Your task to perform on an android device: Open the calendar and show me this week's events? Image 0: 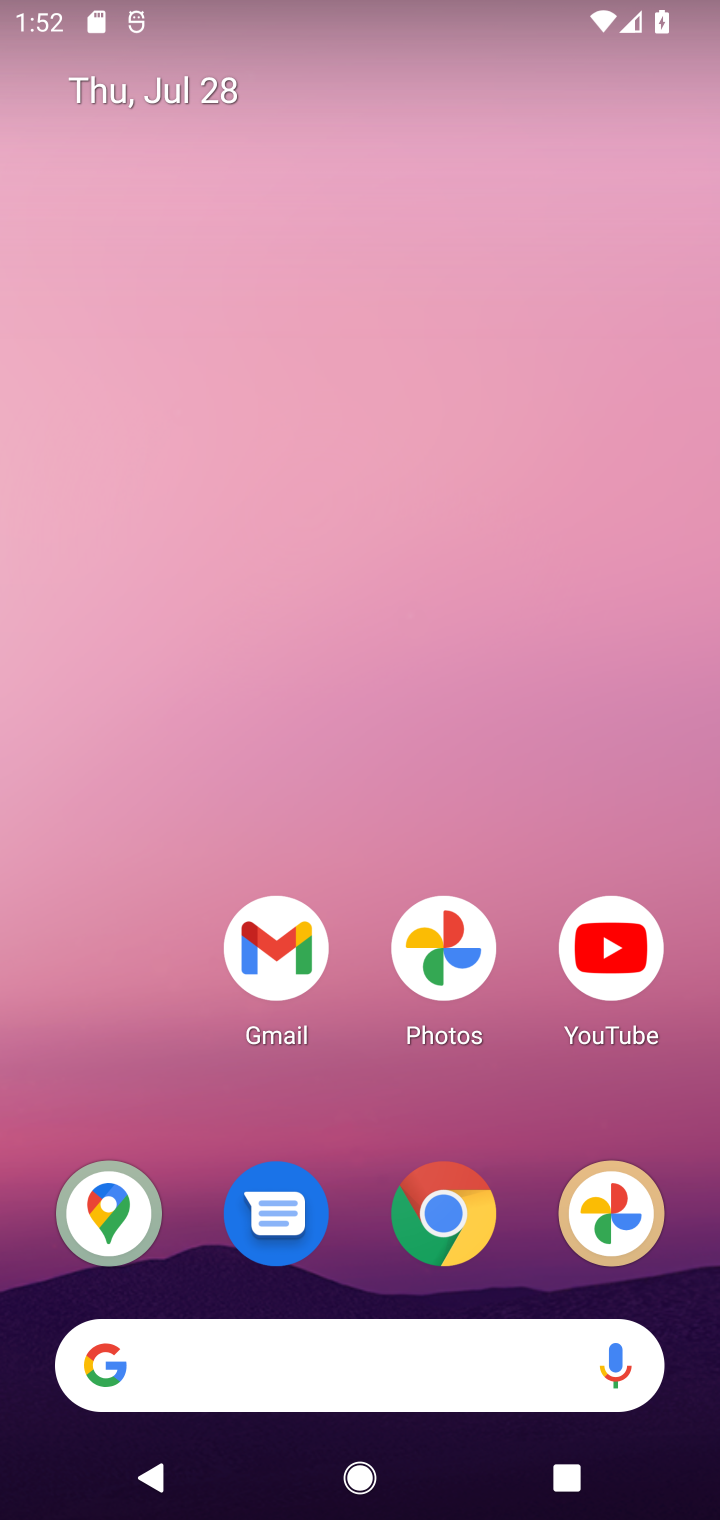
Step 0: drag from (155, 1083) to (212, 1)
Your task to perform on an android device: Open the calendar and show me this week's events? Image 1: 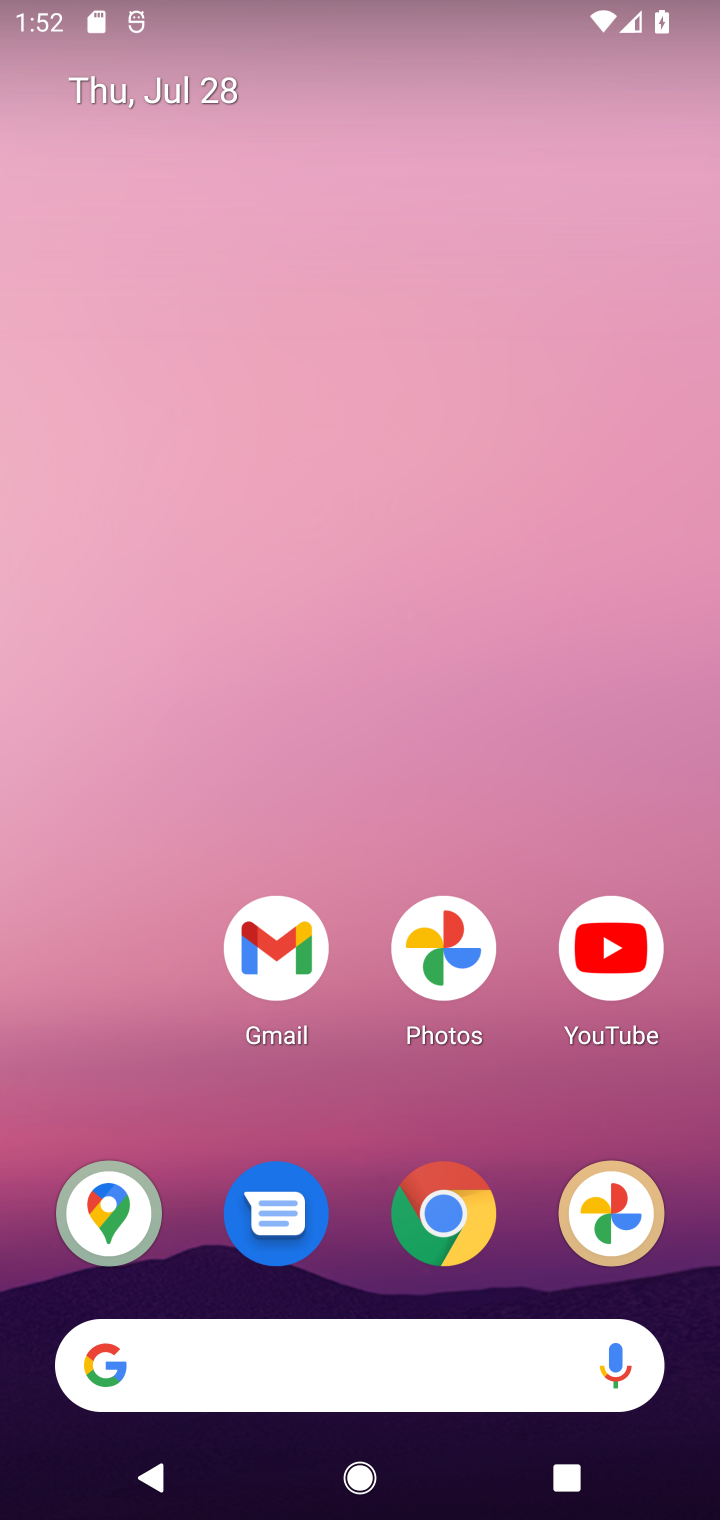
Step 1: drag from (369, 1273) to (150, 75)
Your task to perform on an android device: Open the calendar and show me this week's events? Image 2: 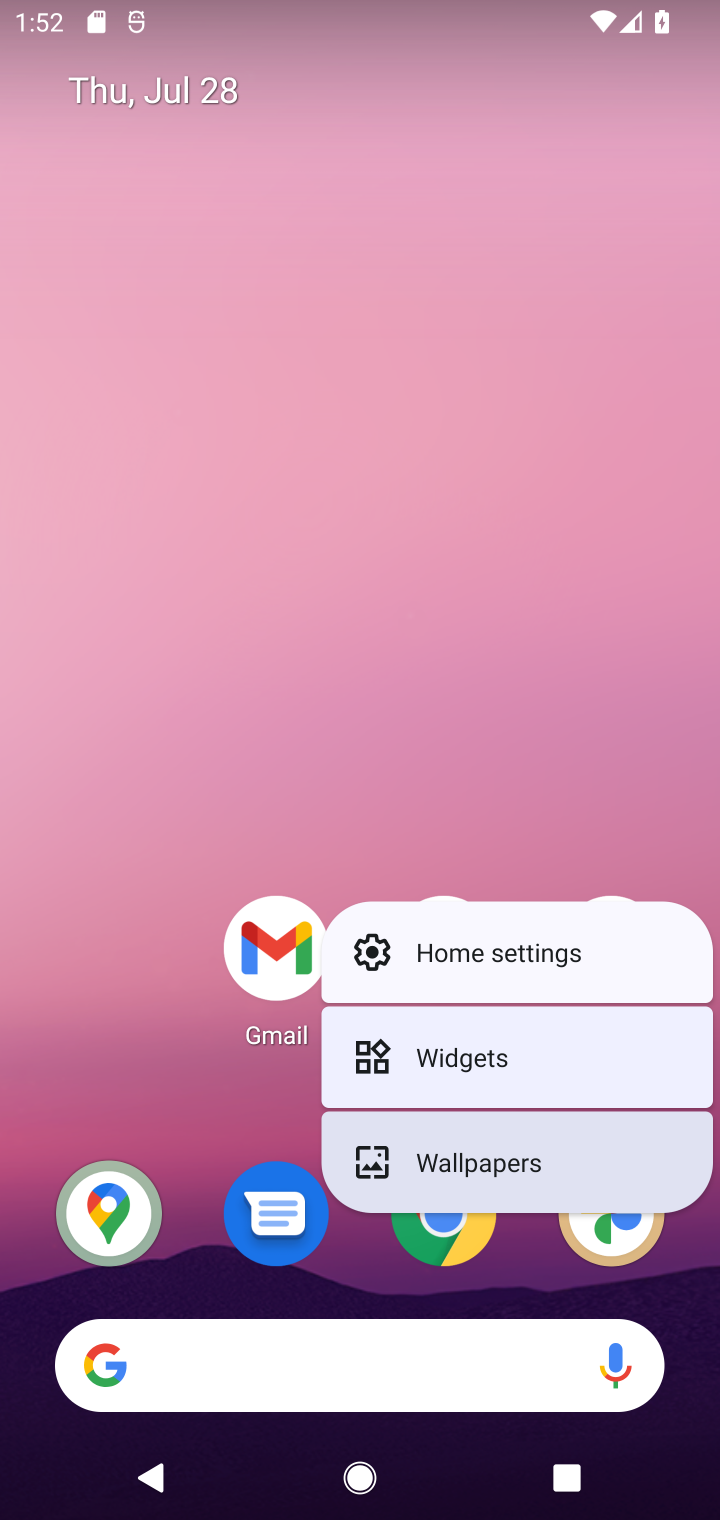
Step 2: click (213, 458)
Your task to perform on an android device: Open the calendar and show me this week's events? Image 3: 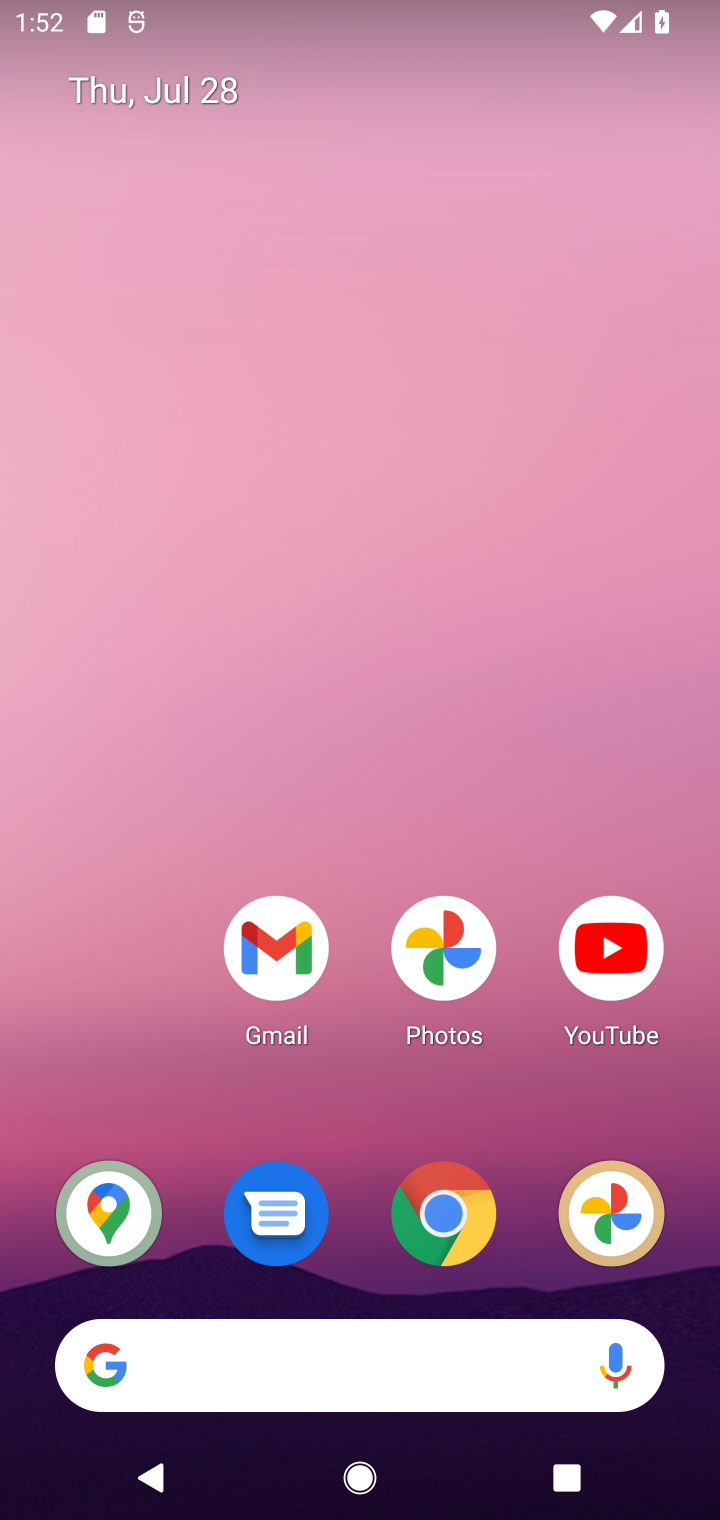
Step 3: click (676, 1290)
Your task to perform on an android device: Open the calendar and show me this week's events? Image 4: 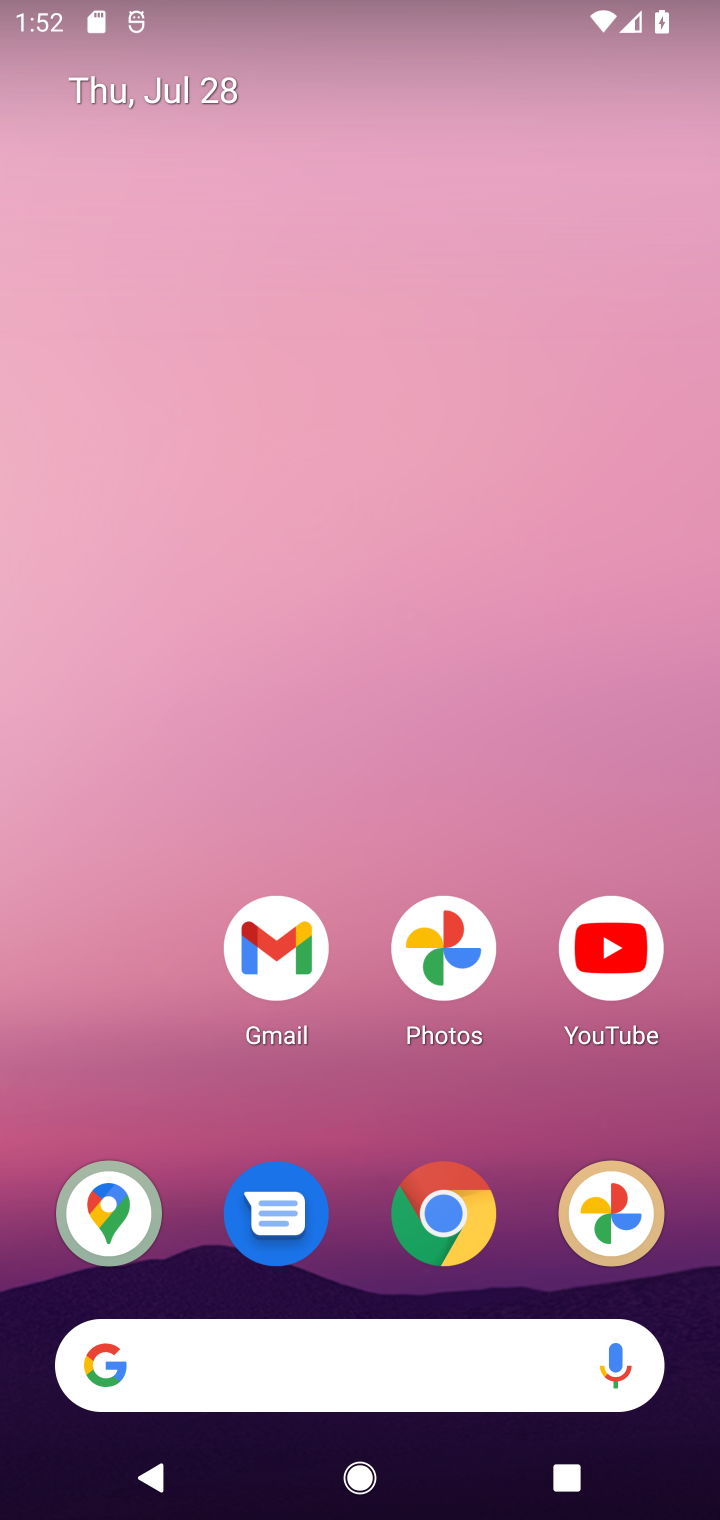
Step 4: drag from (676, 1290) to (524, 443)
Your task to perform on an android device: Open the calendar and show me this week's events? Image 5: 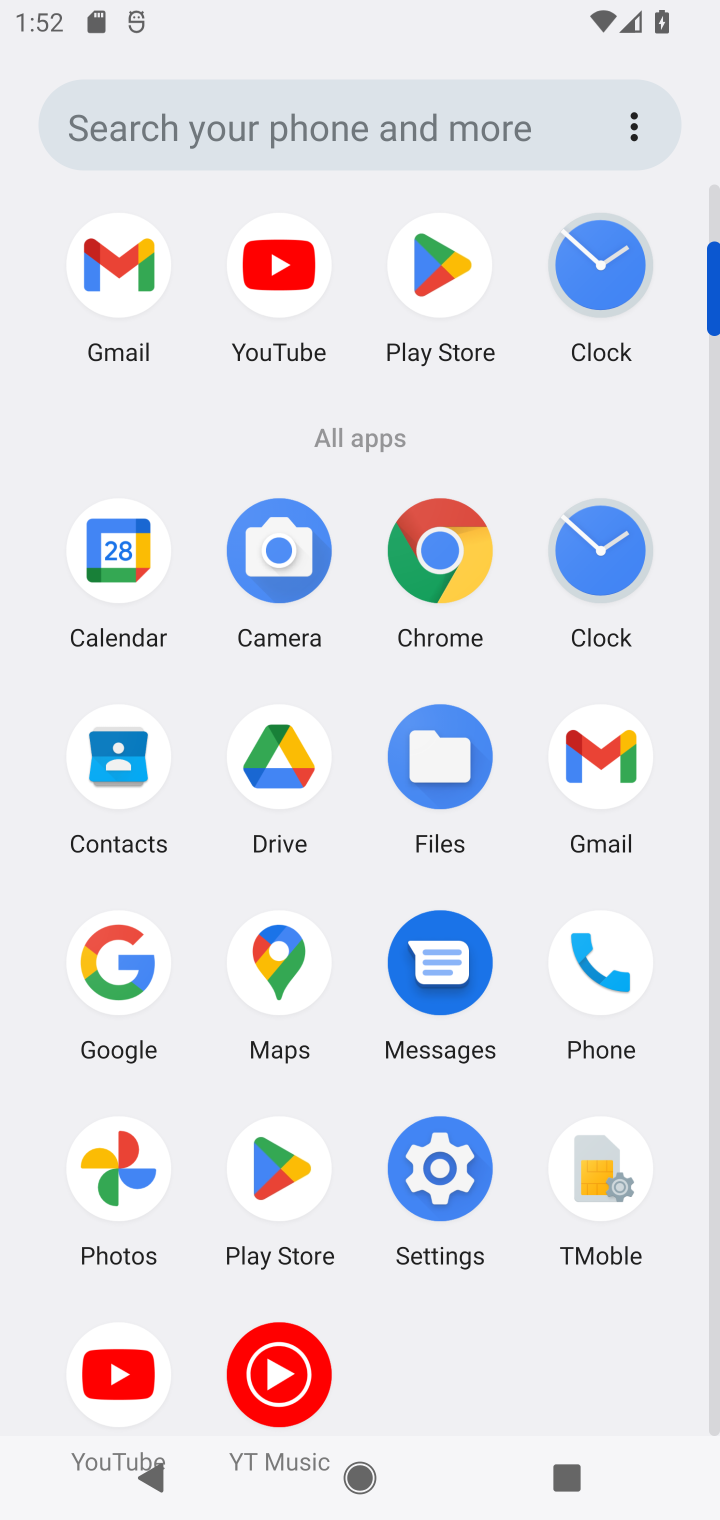
Step 5: click (99, 540)
Your task to perform on an android device: Open the calendar and show me this week's events? Image 6: 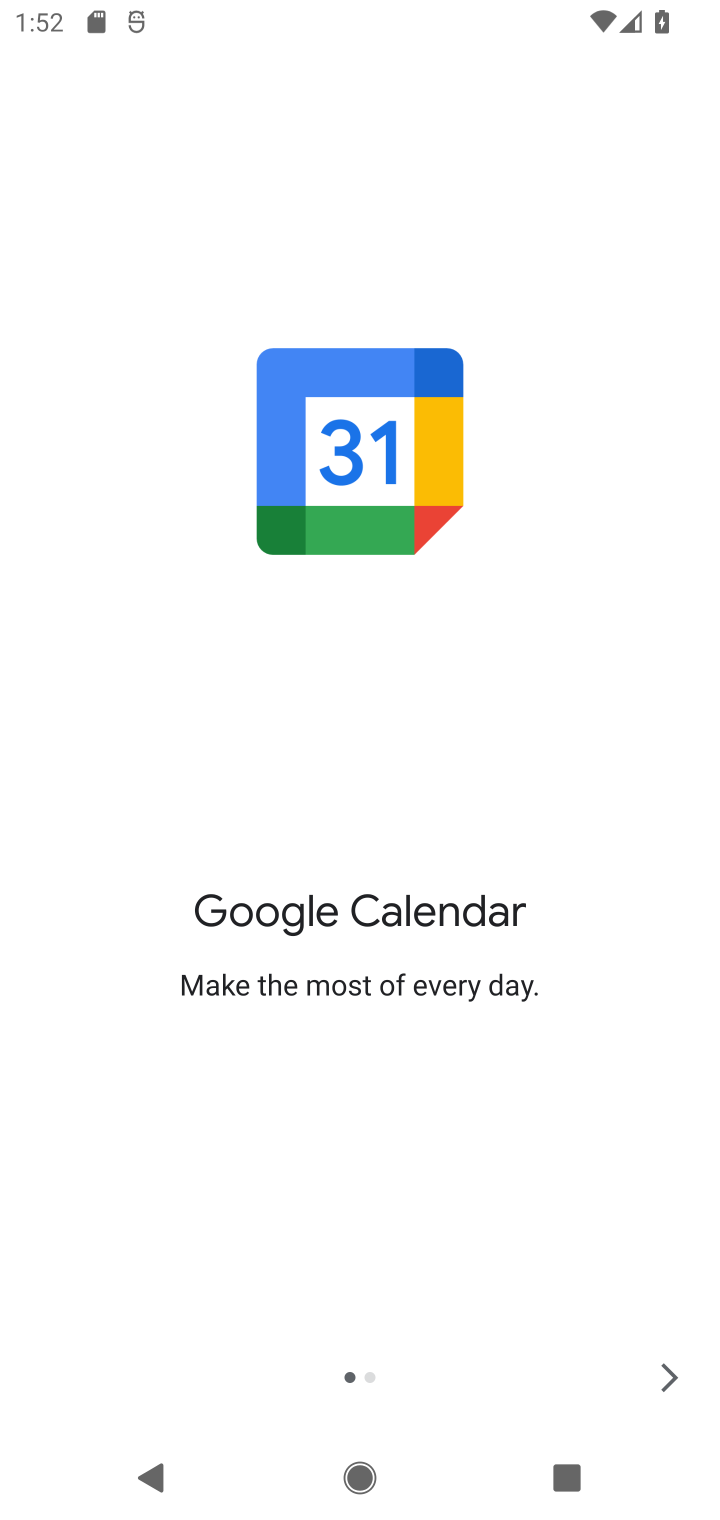
Step 6: click (663, 1385)
Your task to perform on an android device: Open the calendar and show me this week's events? Image 7: 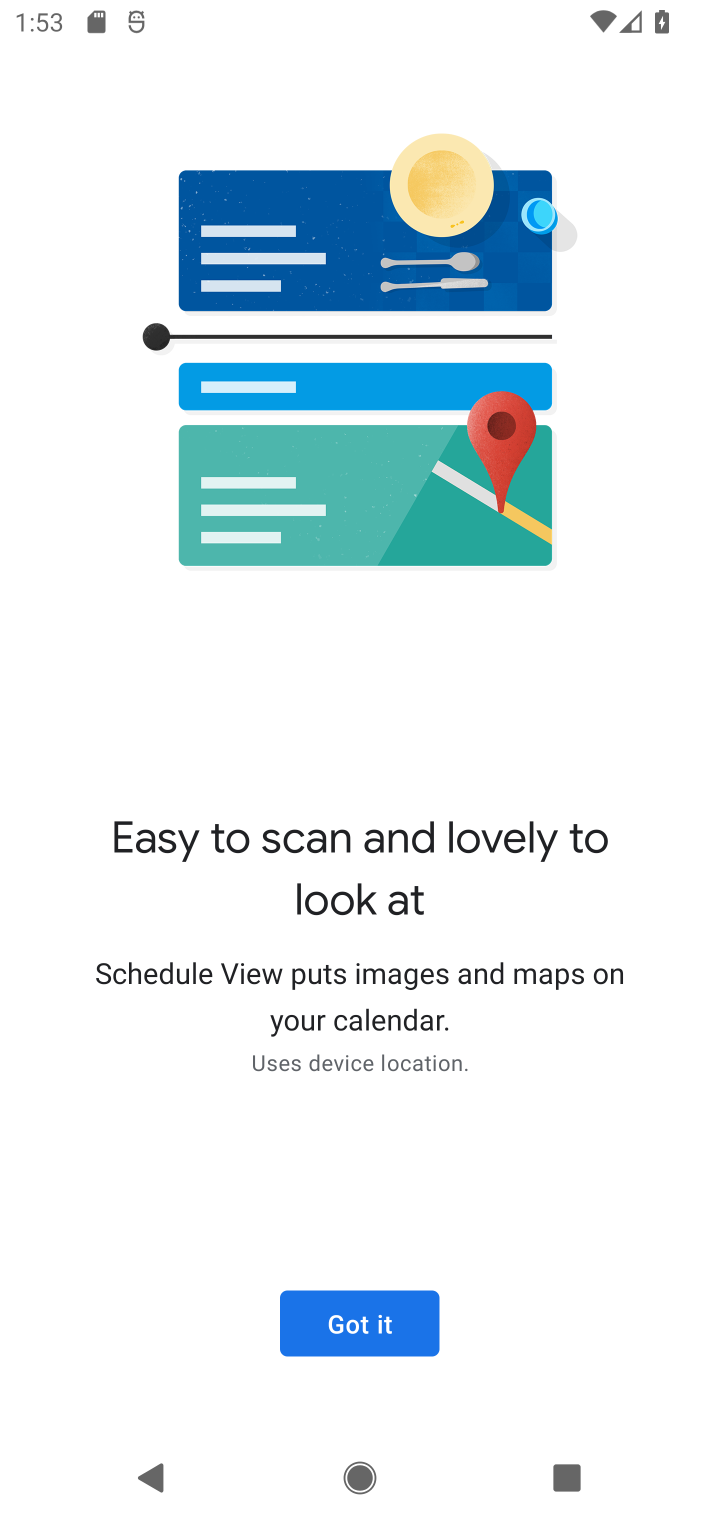
Step 7: click (373, 1340)
Your task to perform on an android device: Open the calendar and show me this week's events? Image 8: 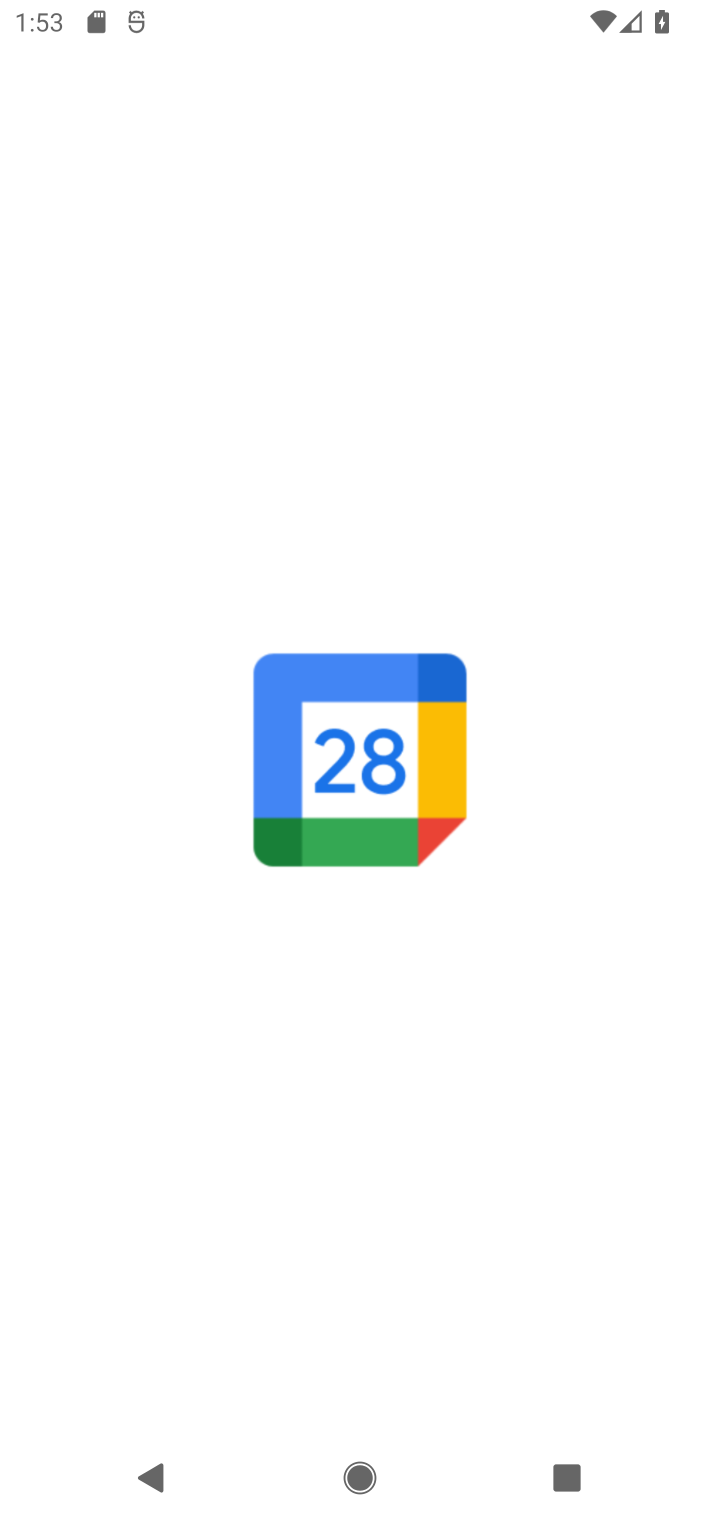
Step 8: click (410, 682)
Your task to perform on an android device: Open the calendar and show me this week's events? Image 9: 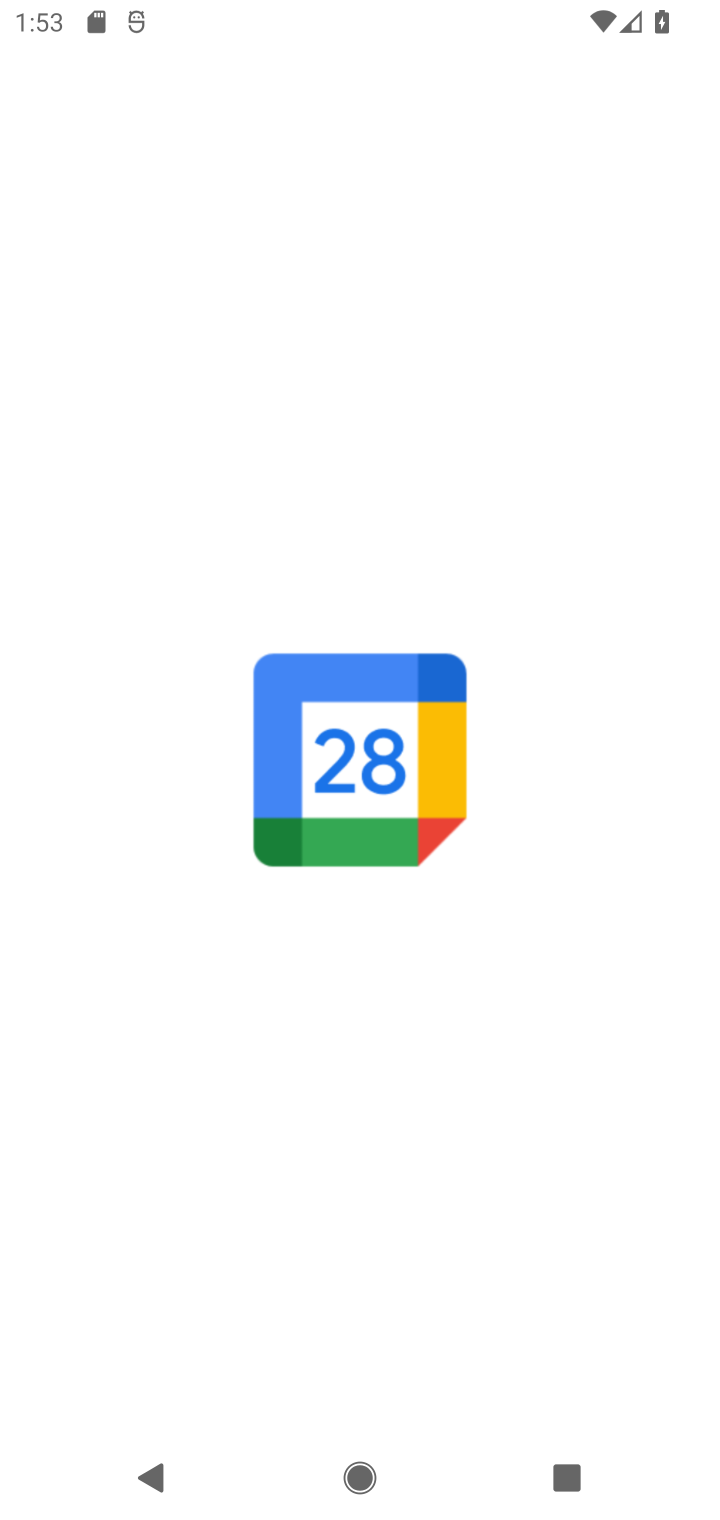
Step 9: click (344, 730)
Your task to perform on an android device: Open the calendar and show me this week's events? Image 10: 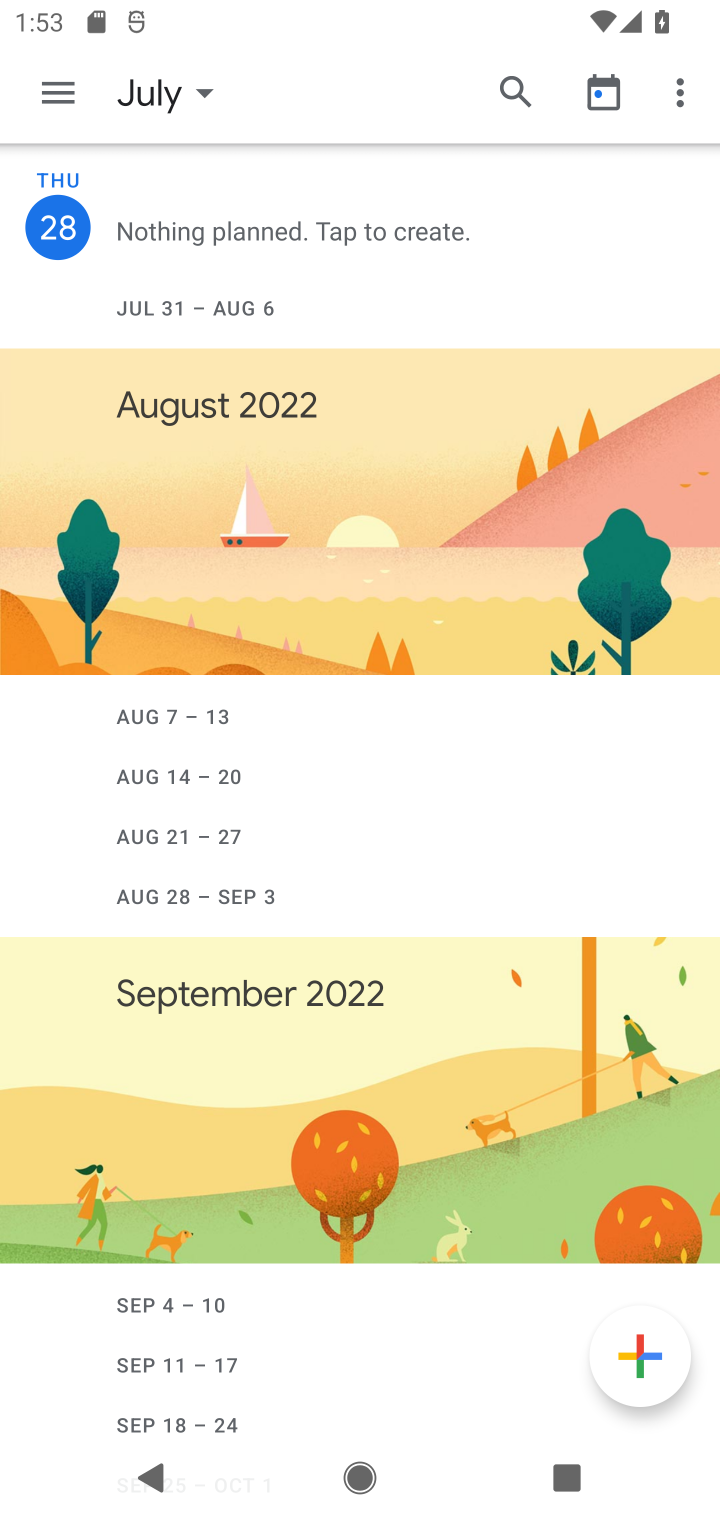
Step 10: click (52, 77)
Your task to perform on an android device: Open the calendar and show me this week's events? Image 11: 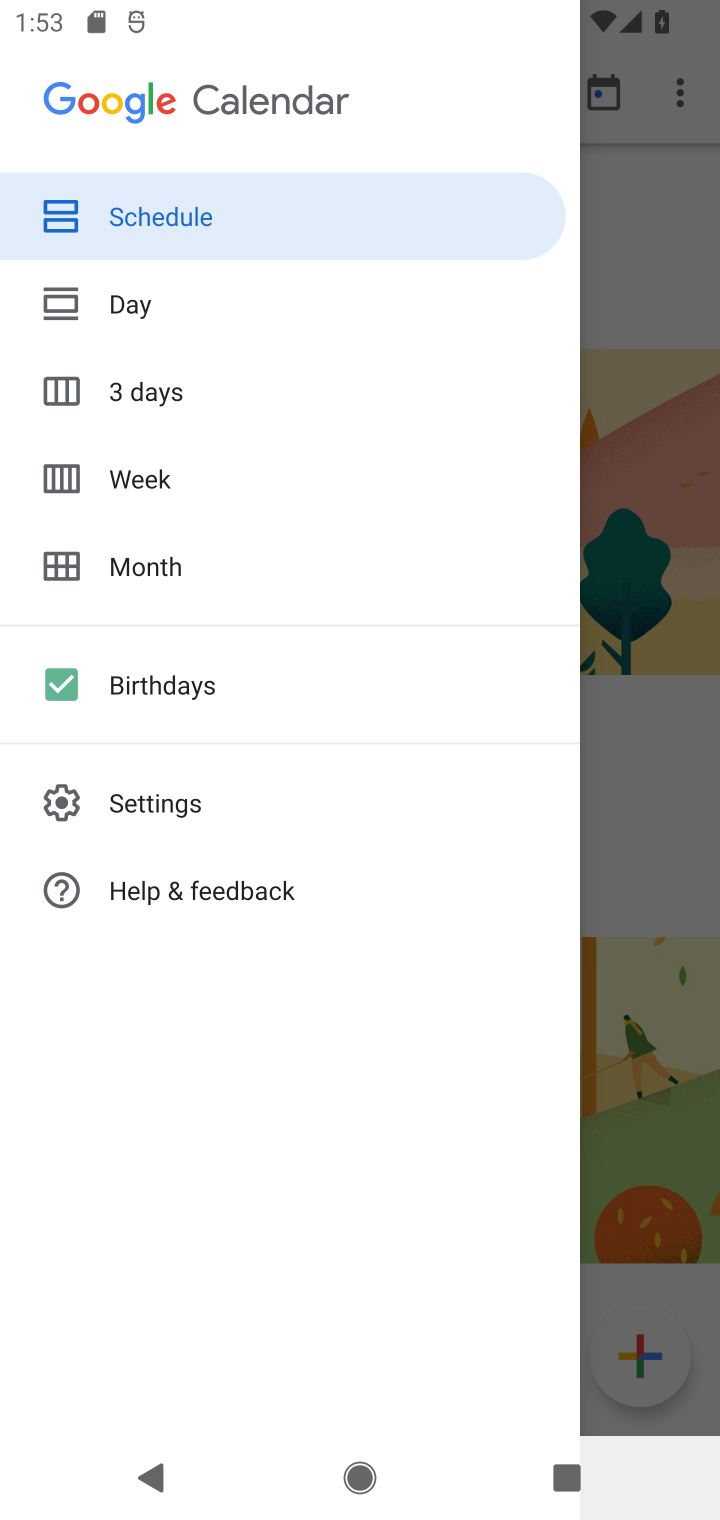
Step 11: click (152, 472)
Your task to perform on an android device: Open the calendar and show me this week's events? Image 12: 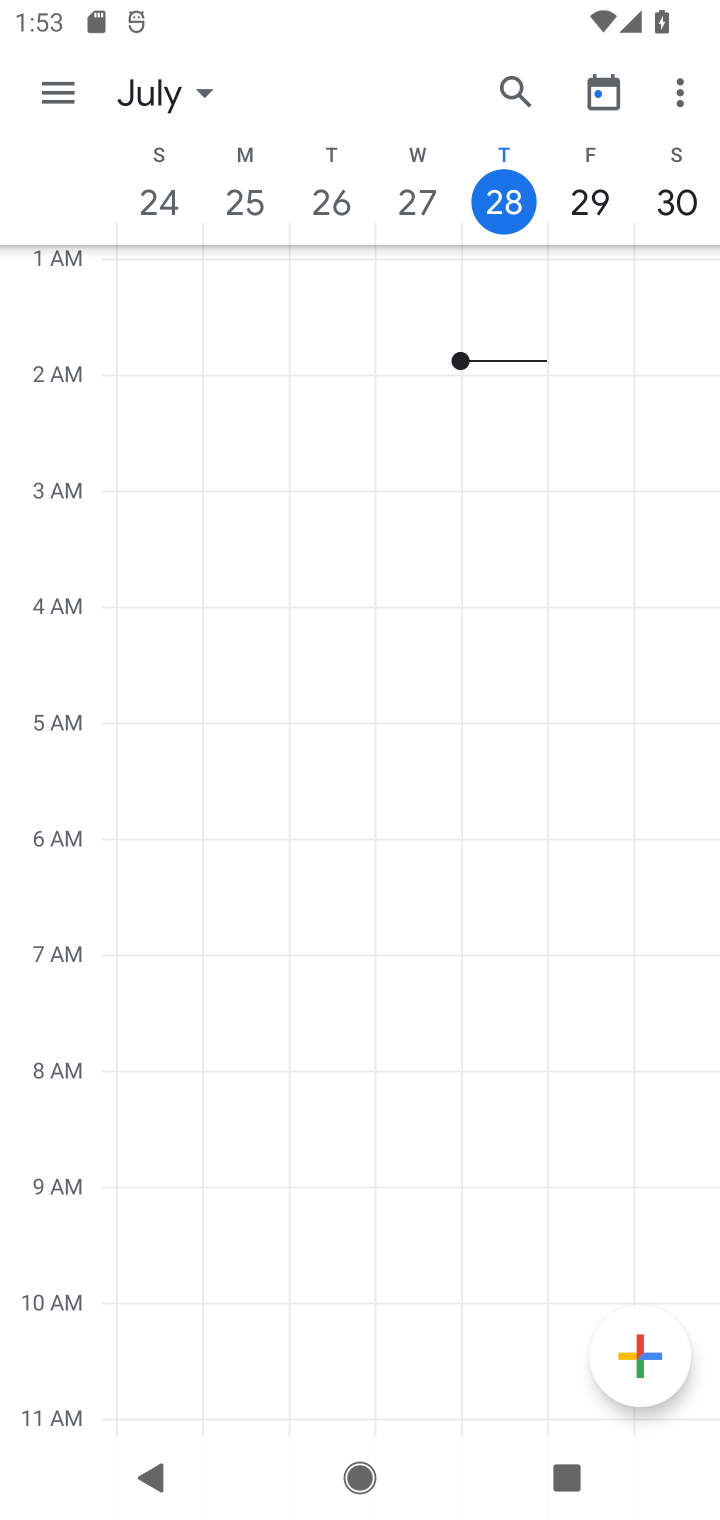
Step 12: click (202, 84)
Your task to perform on an android device: Open the calendar and show me this week's events? Image 13: 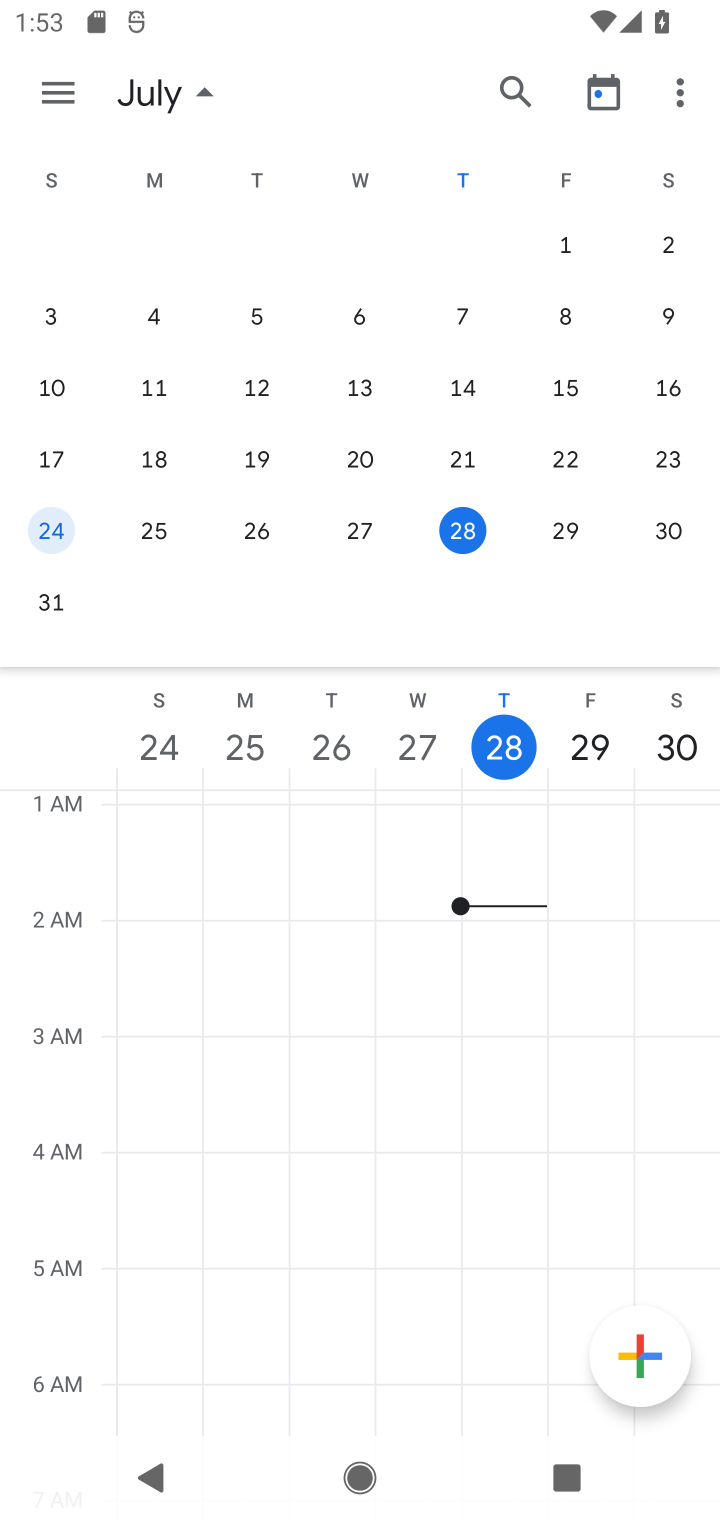
Step 13: click (480, 528)
Your task to perform on an android device: Open the calendar and show me this week's events? Image 14: 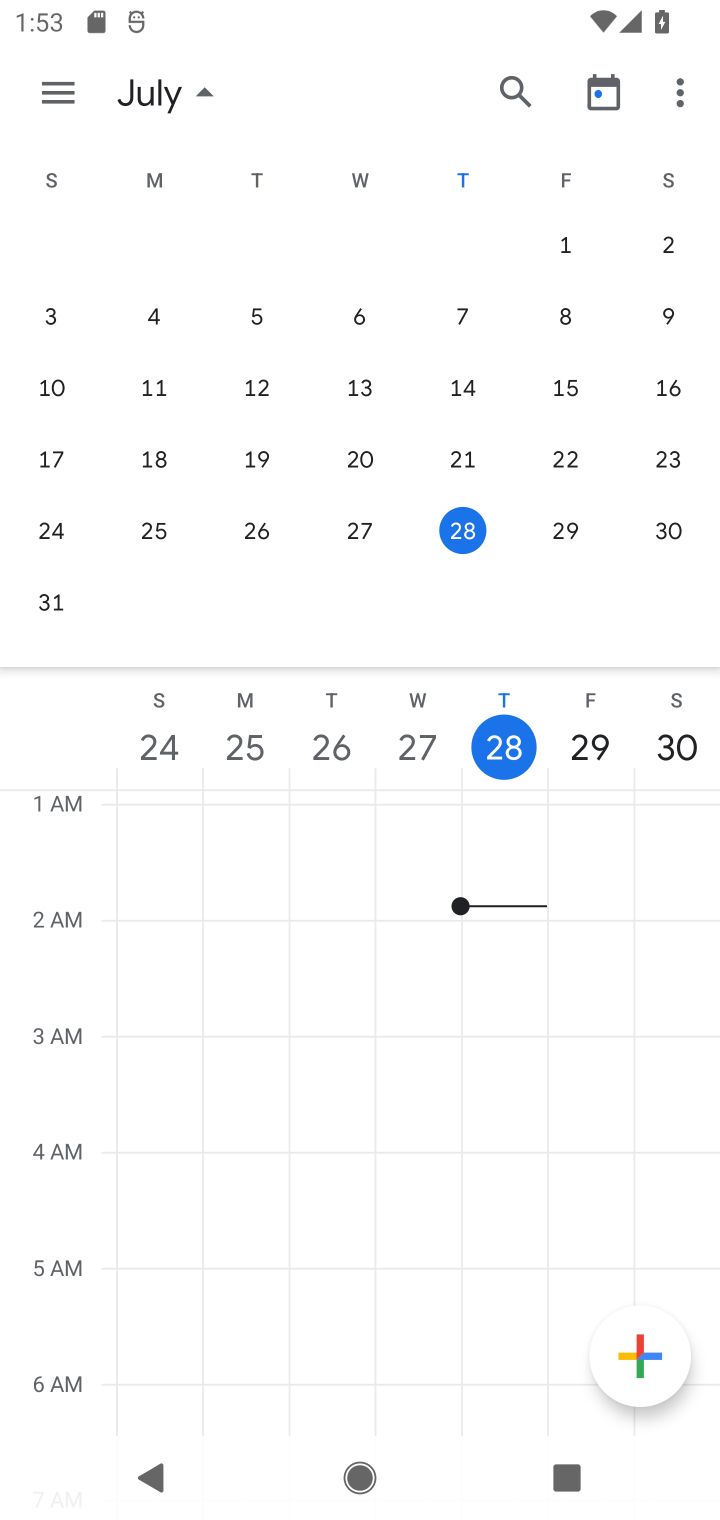
Step 14: click (388, 1072)
Your task to perform on an android device: Open the calendar and show me this week's events? Image 15: 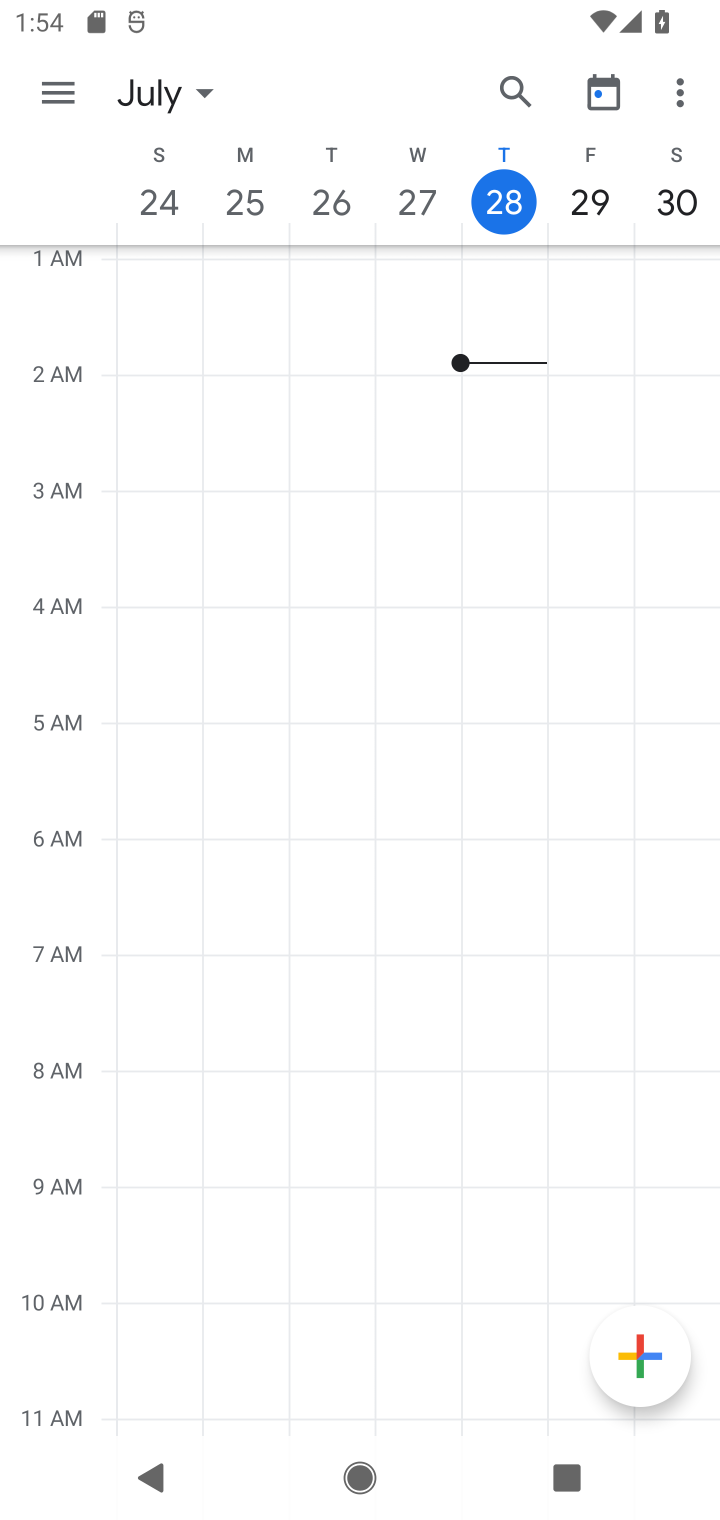
Step 15: task complete